Your task to perform on an android device: check android version Image 0: 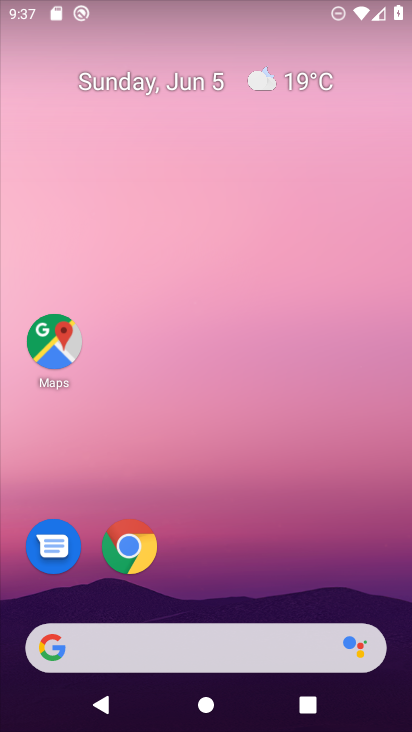
Step 0: drag from (217, 619) to (179, 73)
Your task to perform on an android device: check android version Image 1: 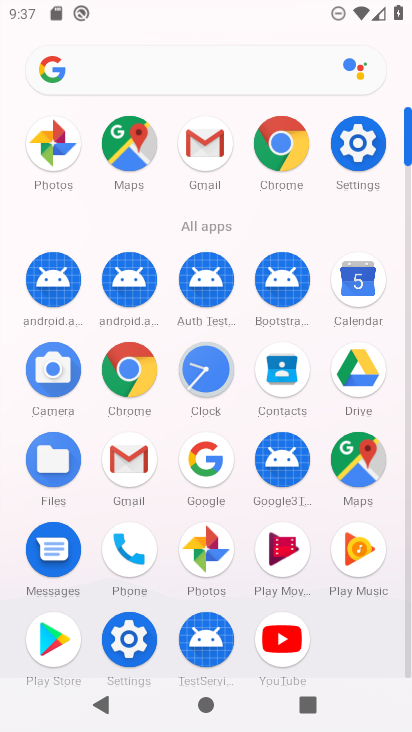
Step 1: click (345, 152)
Your task to perform on an android device: check android version Image 2: 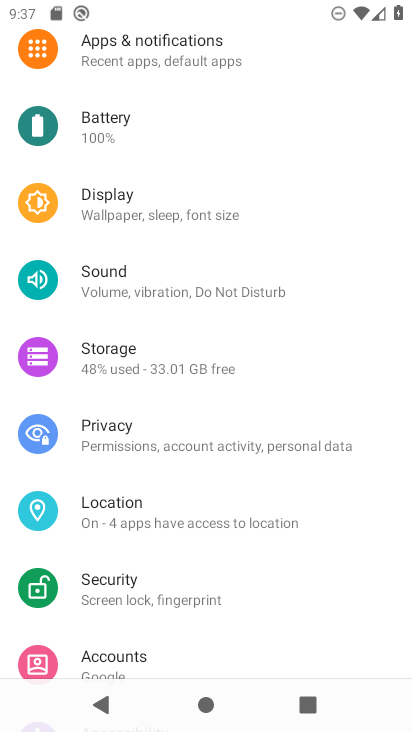
Step 2: drag from (186, 554) to (143, 22)
Your task to perform on an android device: check android version Image 3: 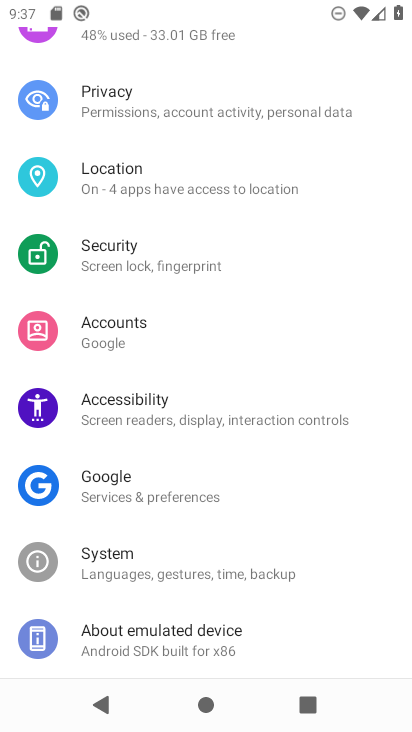
Step 3: click (138, 618)
Your task to perform on an android device: check android version Image 4: 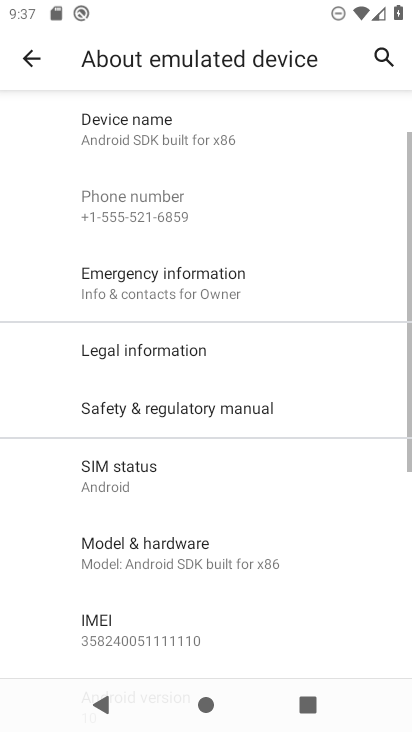
Step 4: drag from (136, 615) to (81, 110)
Your task to perform on an android device: check android version Image 5: 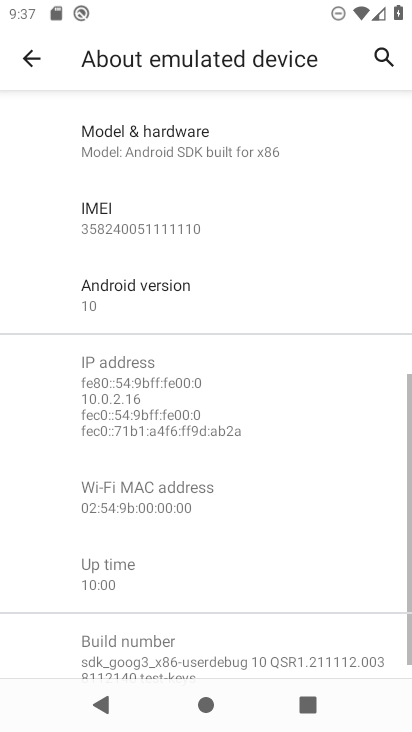
Step 5: drag from (233, 534) to (180, 2)
Your task to perform on an android device: check android version Image 6: 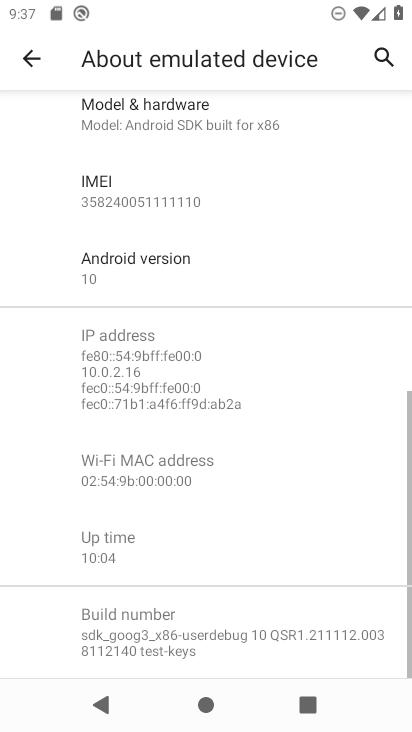
Step 6: click (133, 247)
Your task to perform on an android device: check android version Image 7: 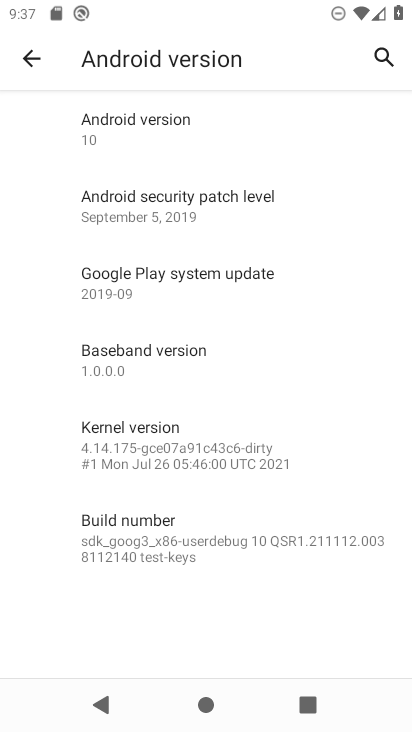
Step 7: click (100, 118)
Your task to perform on an android device: check android version Image 8: 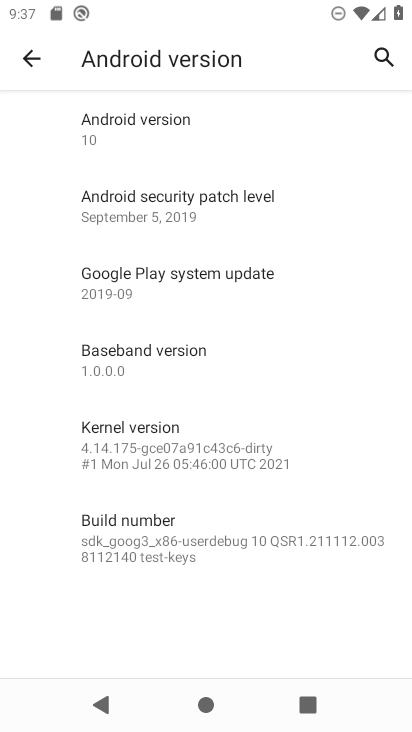
Step 8: task complete